Your task to perform on an android device: Go to Android settings Image 0: 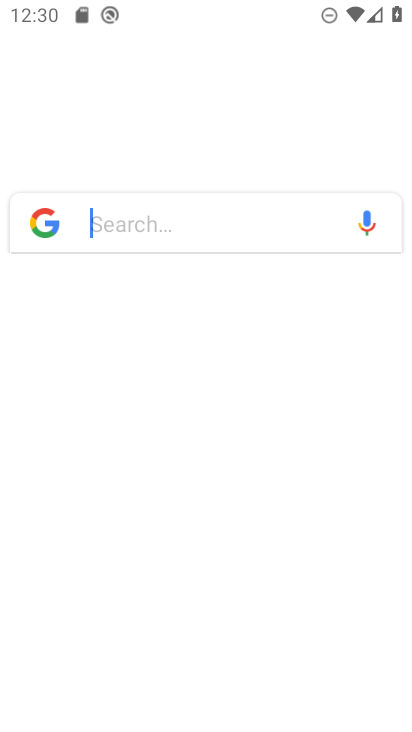
Step 0: click (259, 377)
Your task to perform on an android device: Go to Android settings Image 1: 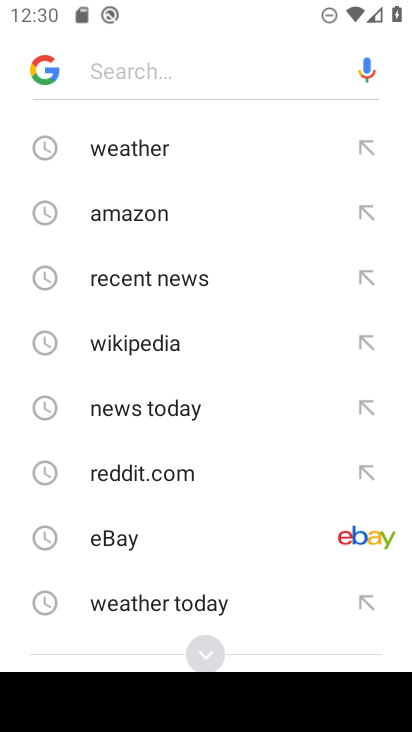
Step 1: press home button
Your task to perform on an android device: Go to Android settings Image 2: 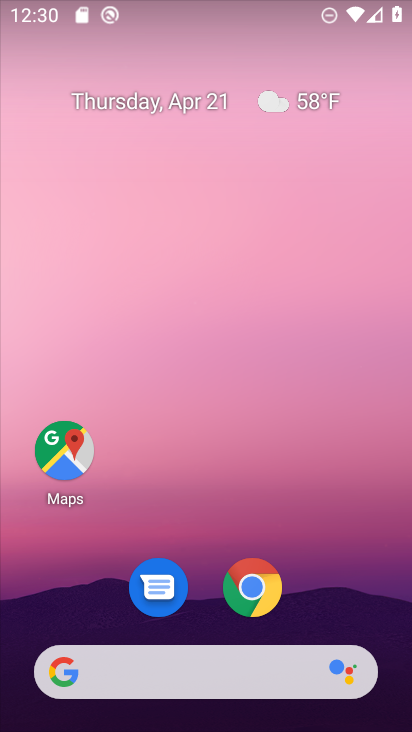
Step 2: drag from (195, 327) to (277, 87)
Your task to perform on an android device: Go to Android settings Image 3: 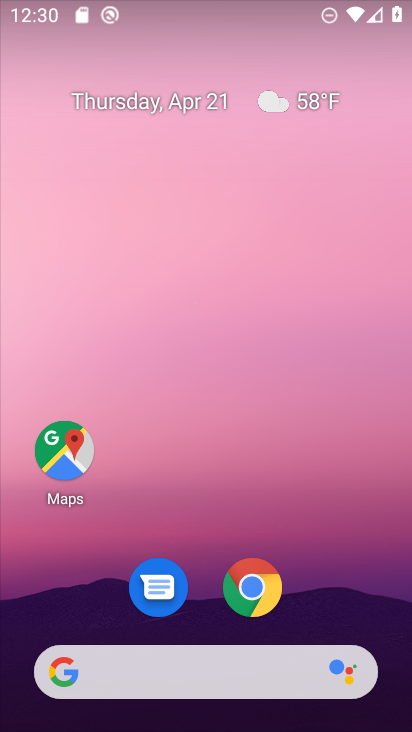
Step 3: drag from (294, 568) to (241, 27)
Your task to perform on an android device: Go to Android settings Image 4: 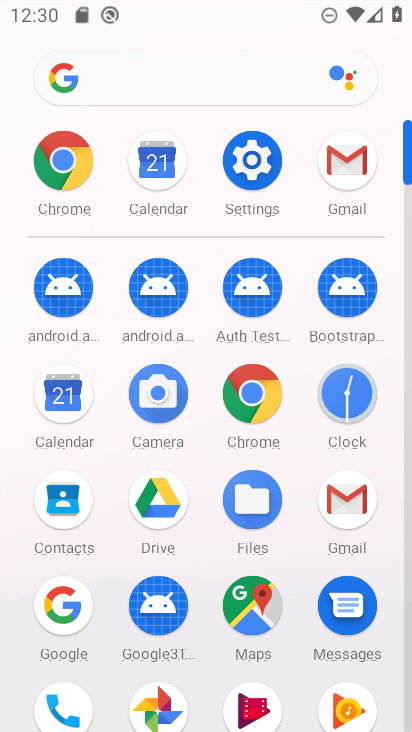
Step 4: click (245, 211)
Your task to perform on an android device: Go to Android settings Image 5: 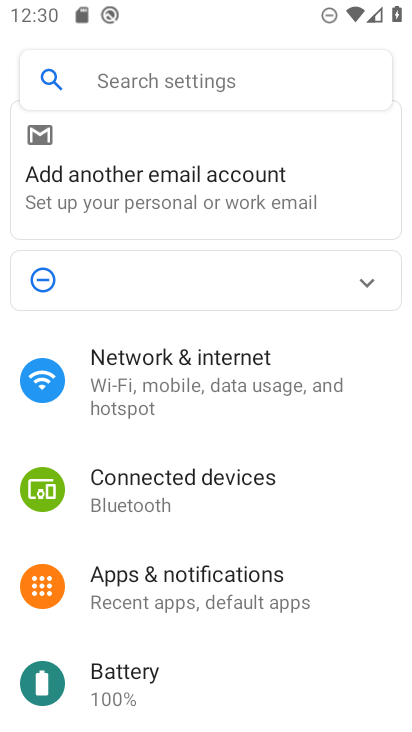
Step 5: drag from (164, 625) to (235, 78)
Your task to perform on an android device: Go to Android settings Image 6: 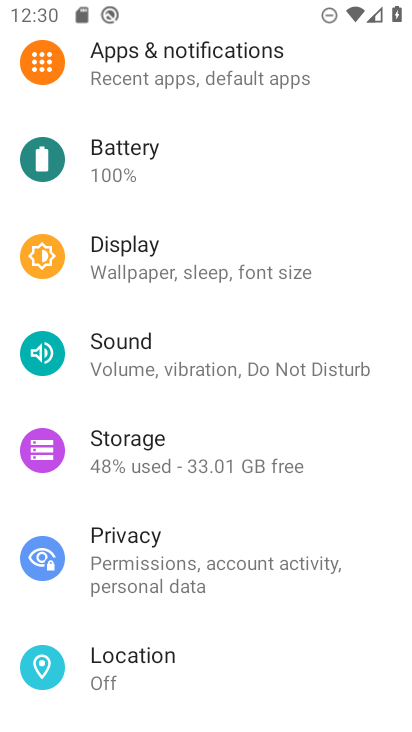
Step 6: drag from (134, 557) to (152, 183)
Your task to perform on an android device: Go to Android settings Image 7: 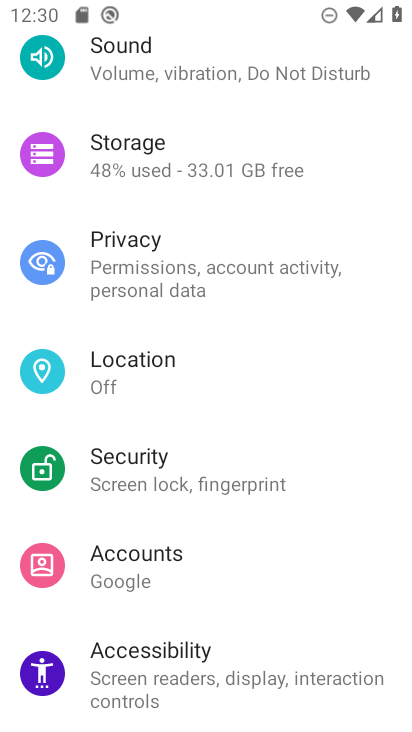
Step 7: drag from (110, 571) to (169, 190)
Your task to perform on an android device: Go to Android settings Image 8: 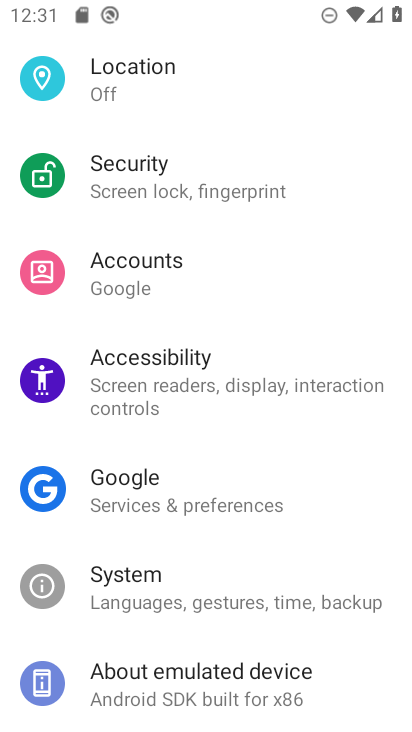
Step 8: click (160, 682)
Your task to perform on an android device: Go to Android settings Image 9: 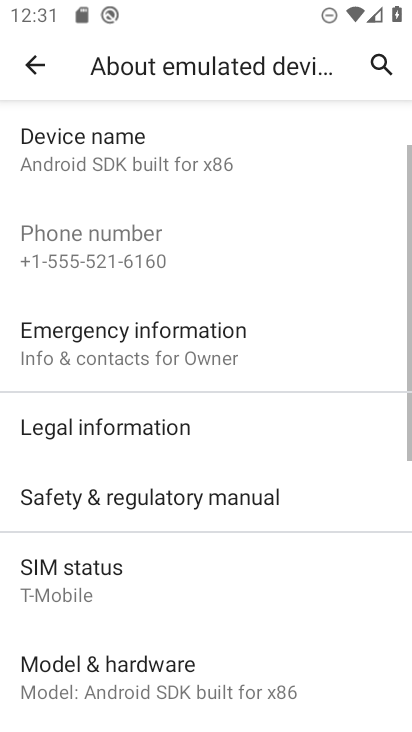
Step 9: drag from (135, 546) to (235, 3)
Your task to perform on an android device: Go to Android settings Image 10: 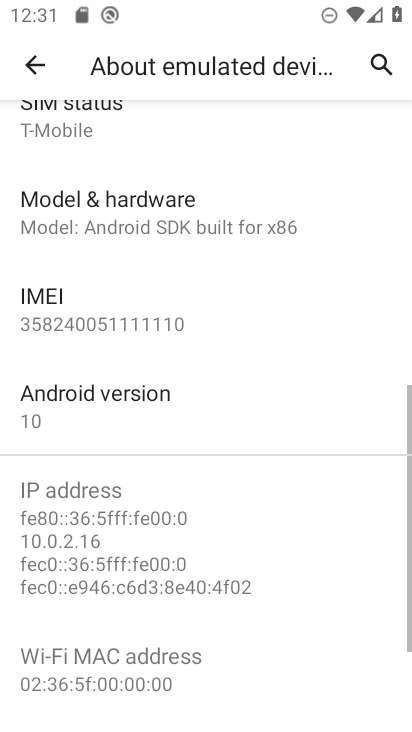
Step 10: click (103, 400)
Your task to perform on an android device: Go to Android settings Image 11: 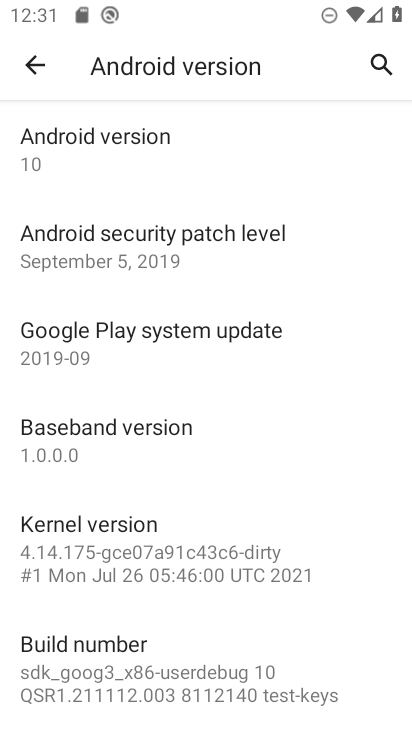
Step 11: task complete